Your task to perform on an android device: Go to ESPN.com Image 0: 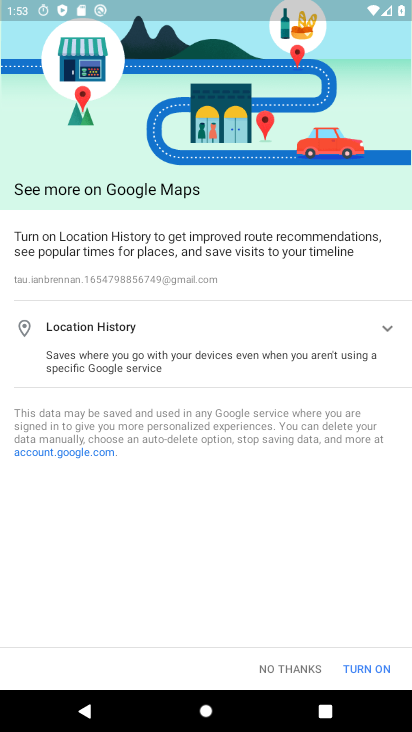
Step 0: press home button
Your task to perform on an android device: Go to ESPN.com Image 1: 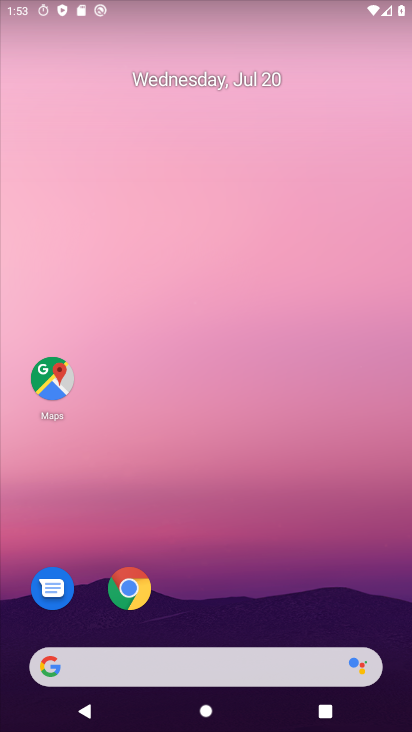
Step 1: drag from (196, 643) to (320, 1)
Your task to perform on an android device: Go to ESPN.com Image 2: 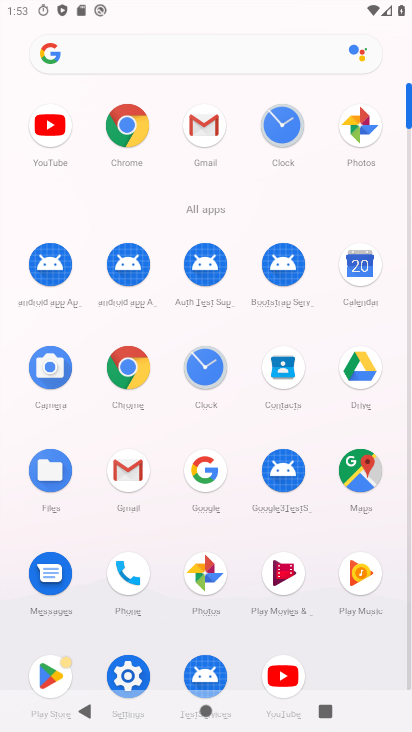
Step 2: click (136, 367)
Your task to perform on an android device: Go to ESPN.com Image 3: 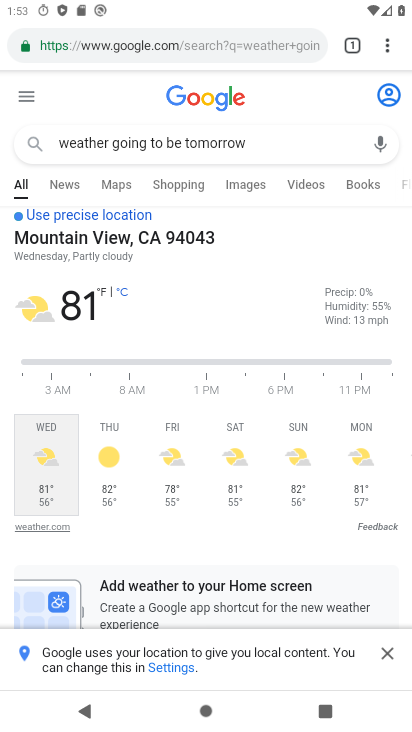
Step 3: click (193, 42)
Your task to perform on an android device: Go to ESPN.com Image 4: 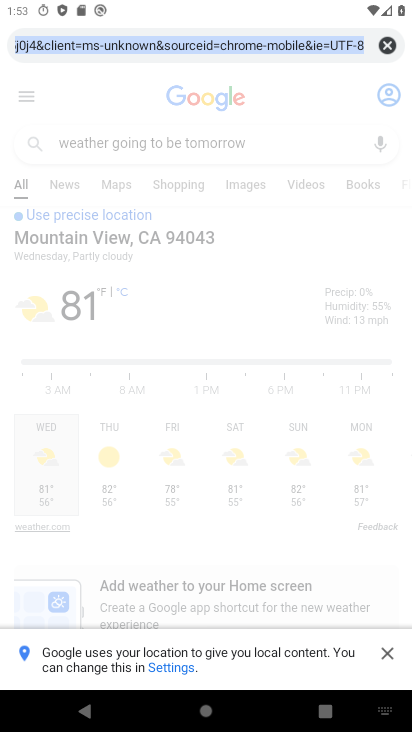
Step 4: type "espn.comm"
Your task to perform on an android device: Go to ESPN.com Image 5: 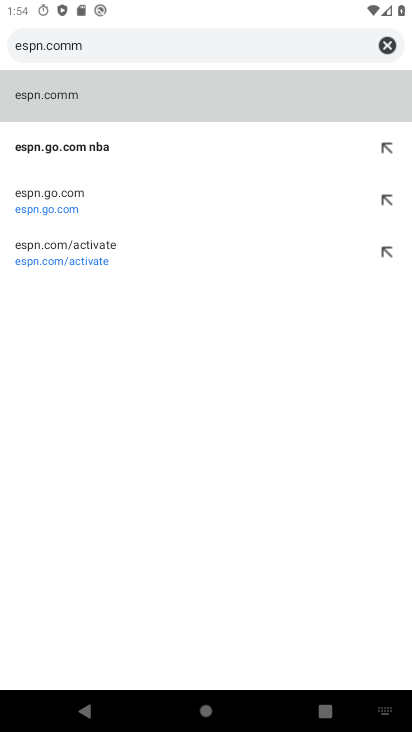
Step 5: click (76, 199)
Your task to perform on an android device: Go to ESPN.com Image 6: 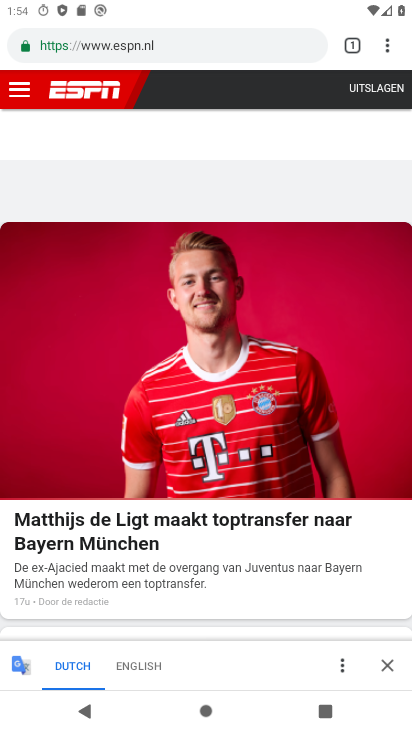
Step 6: task complete